Your task to perform on an android device: Go to network settings Image 0: 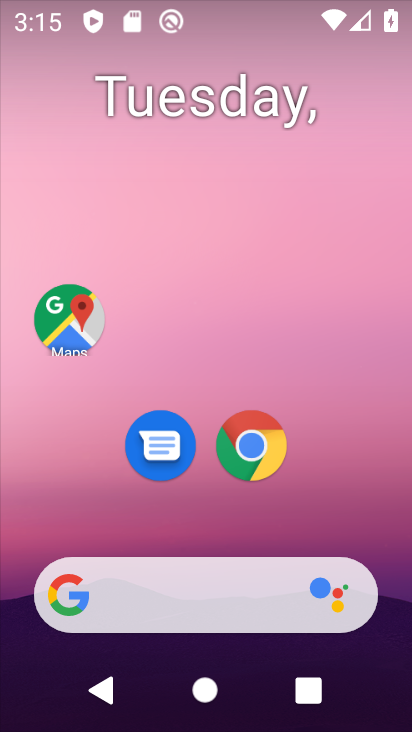
Step 0: drag from (344, 407) to (343, 159)
Your task to perform on an android device: Go to network settings Image 1: 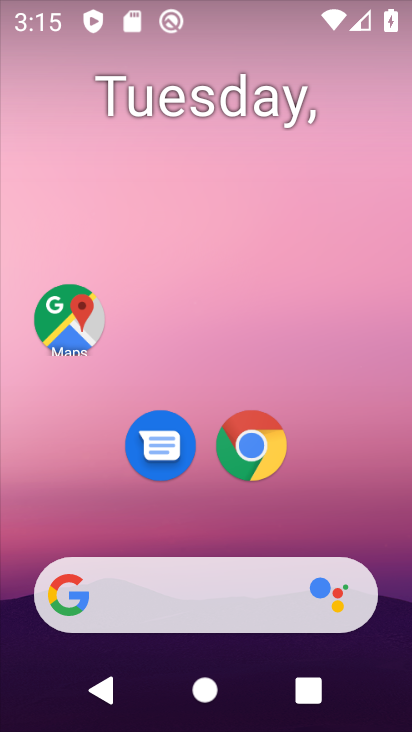
Step 1: drag from (319, 516) to (326, 127)
Your task to perform on an android device: Go to network settings Image 2: 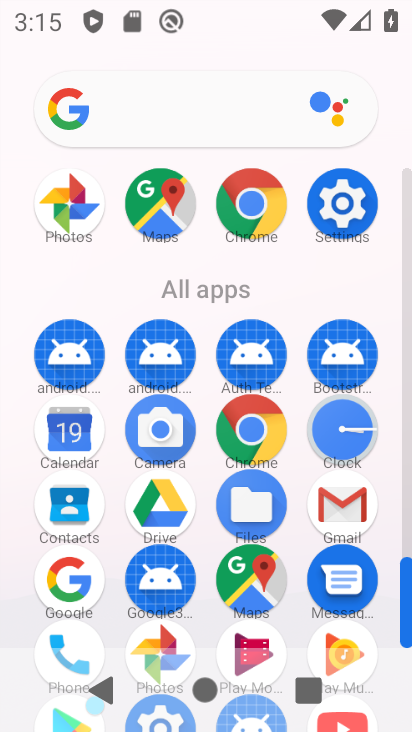
Step 2: click (345, 212)
Your task to perform on an android device: Go to network settings Image 3: 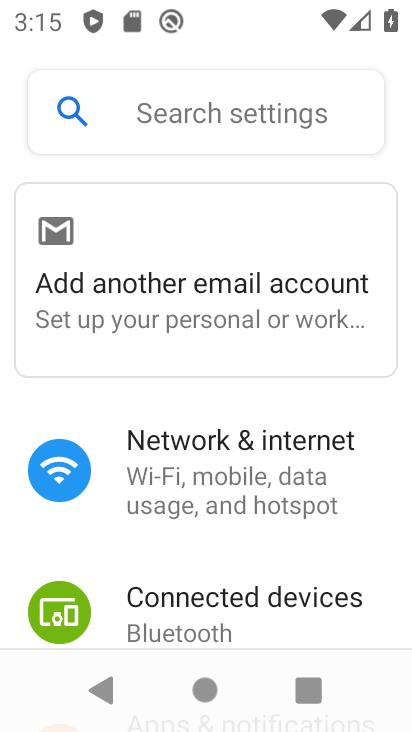
Step 3: click (274, 522)
Your task to perform on an android device: Go to network settings Image 4: 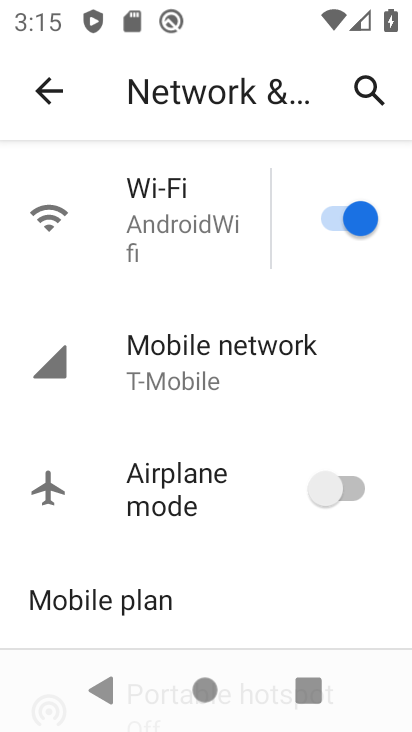
Step 4: task complete